Your task to perform on an android device: install app "Skype" Image 0: 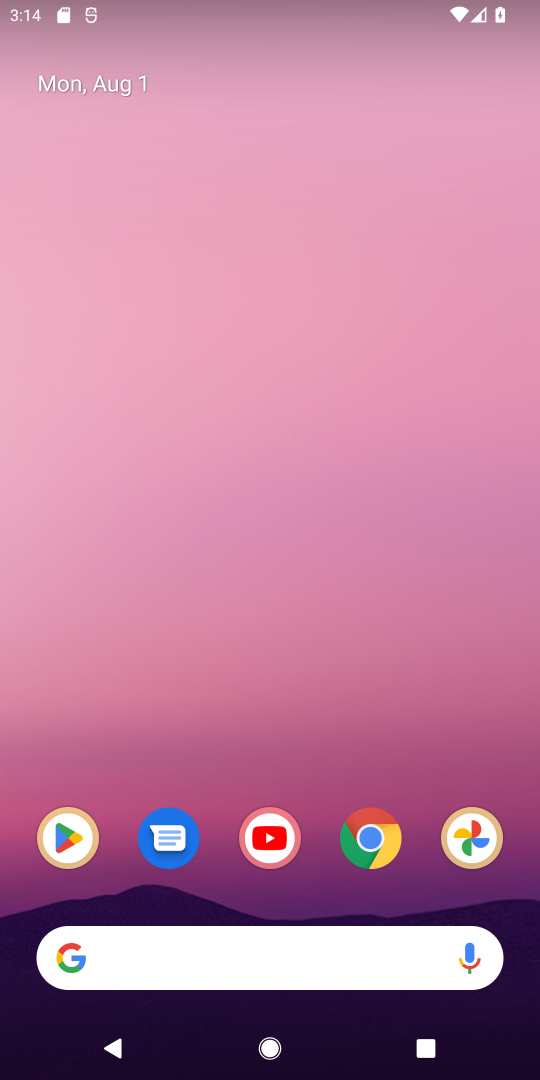
Step 0: click (63, 814)
Your task to perform on an android device: install app "Skype" Image 1: 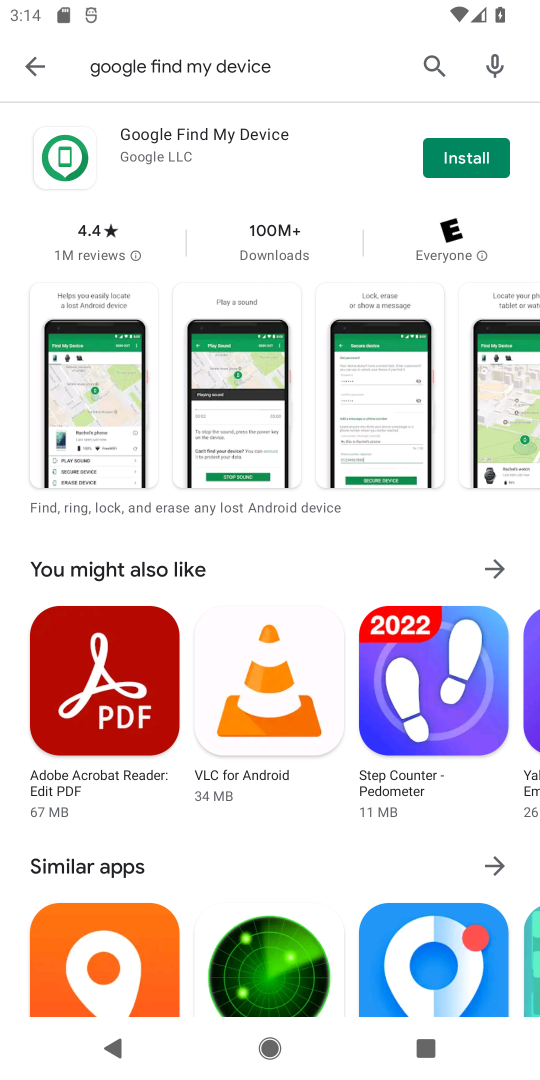
Step 1: click (416, 59)
Your task to perform on an android device: install app "Skype" Image 2: 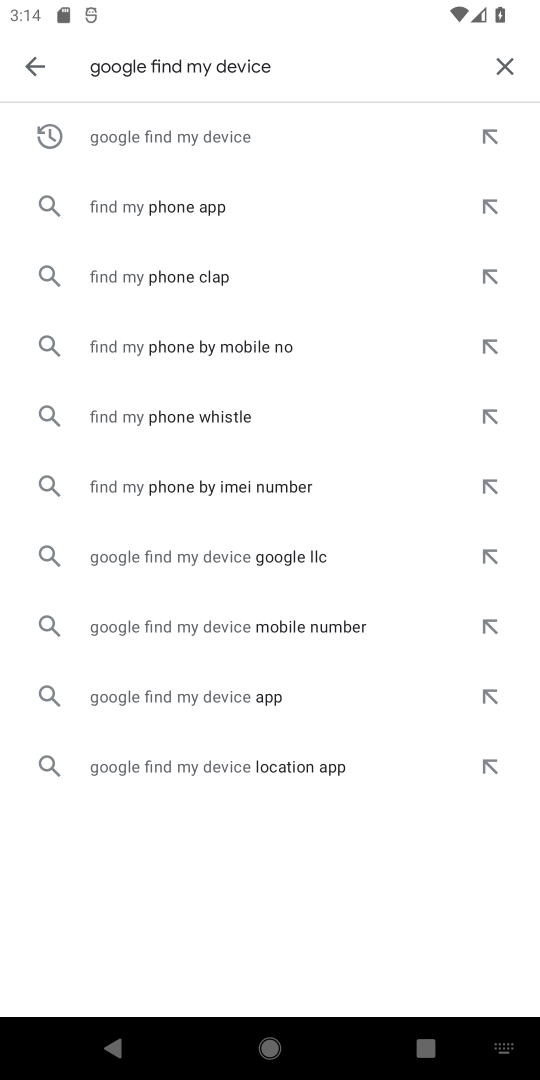
Step 2: click (492, 51)
Your task to perform on an android device: install app "Skype" Image 3: 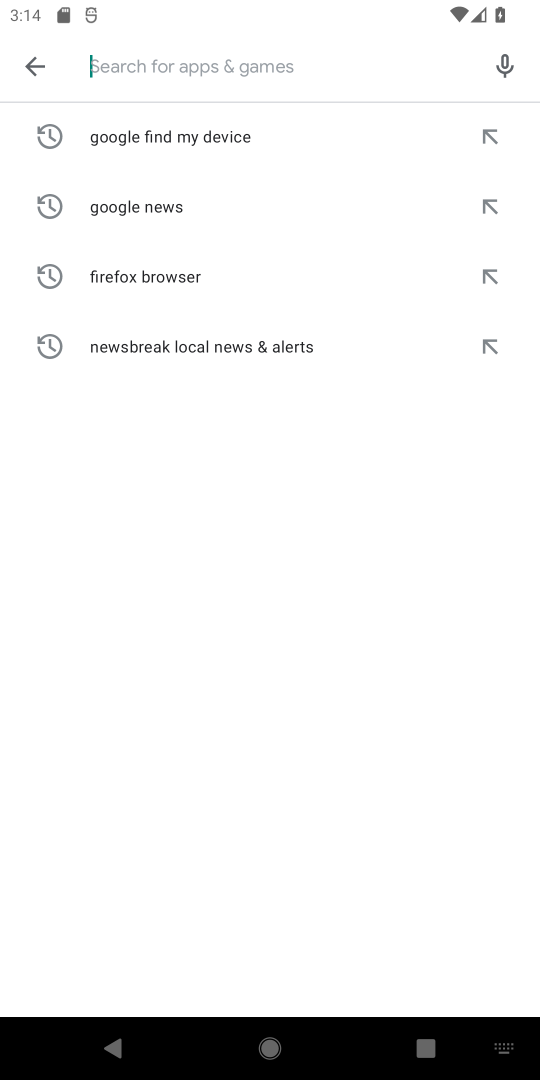
Step 3: type "Skyp"
Your task to perform on an android device: install app "Skype" Image 4: 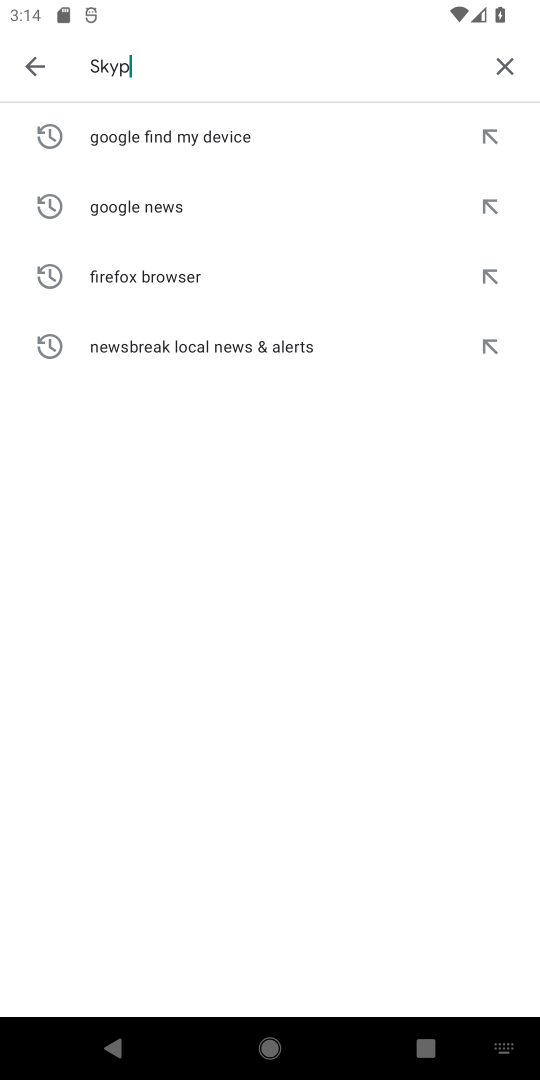
Step 4: type ""
Your task to perform on an android device: install app "Skype" Image 5: 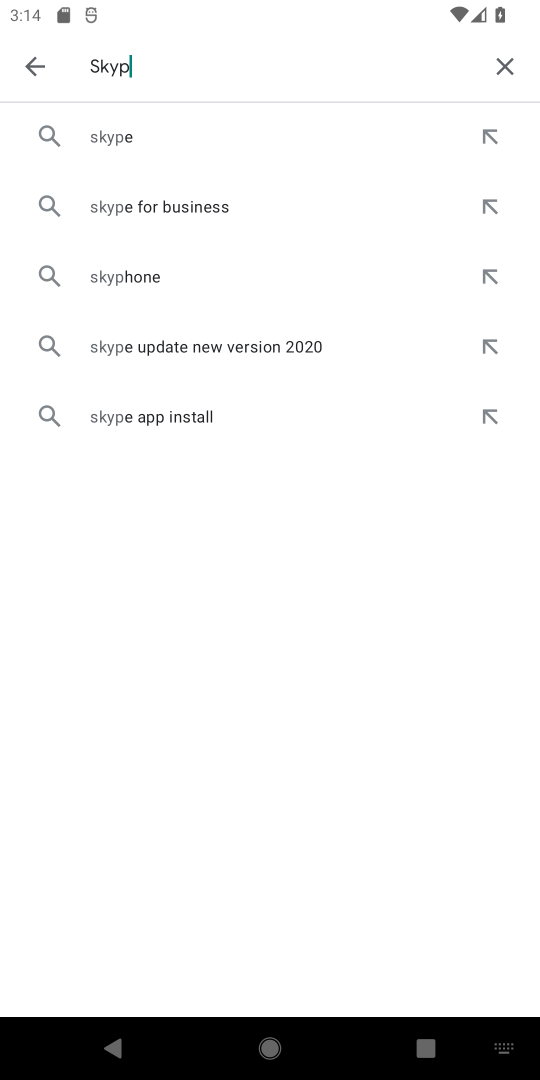
Step 5: click (130, 136)
Your task to perform on an android device: install app "Skype" Image 6: 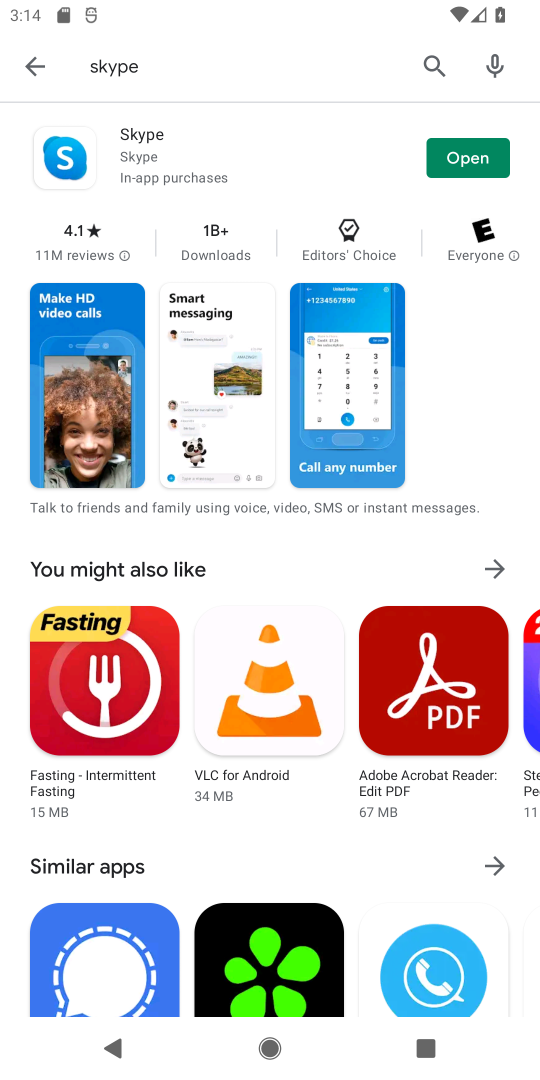
Step 6: task complete